Your task to perform on an android device: Open Youtube and go to the subscriptions tab Image 0: 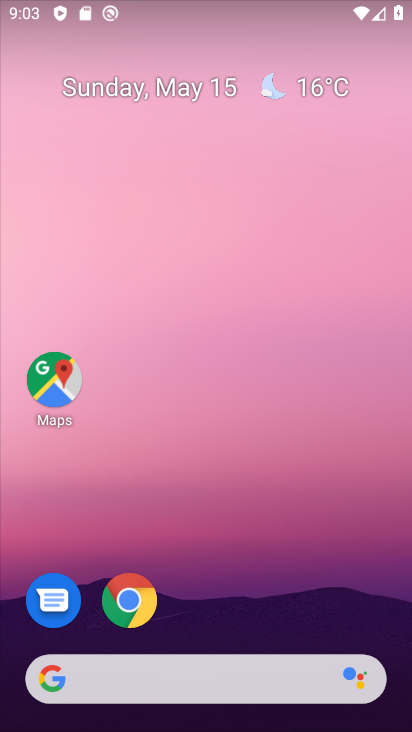
Step 0: drag from (201, 428) to (211, 114)
Your task to perform on an android device: Open Youtube and go to the subscriptions tab Image 1: 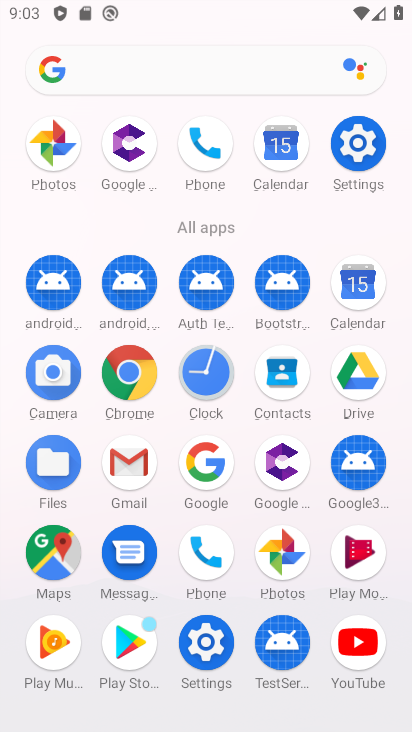
Step 1: click (358, 657)
Your task to perform on an android device: Open Youtube and go to the subscriptions tab Image 2: 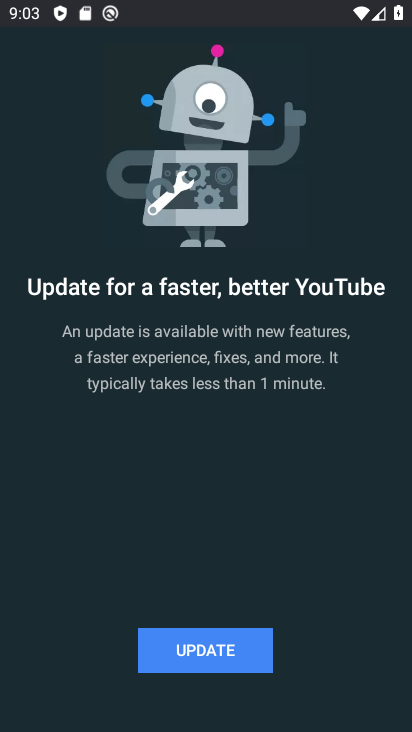
Step 2: click (184, 659)
Your task to perform on an android device: Open Youtube and go to the subscriptions tab Image 3: 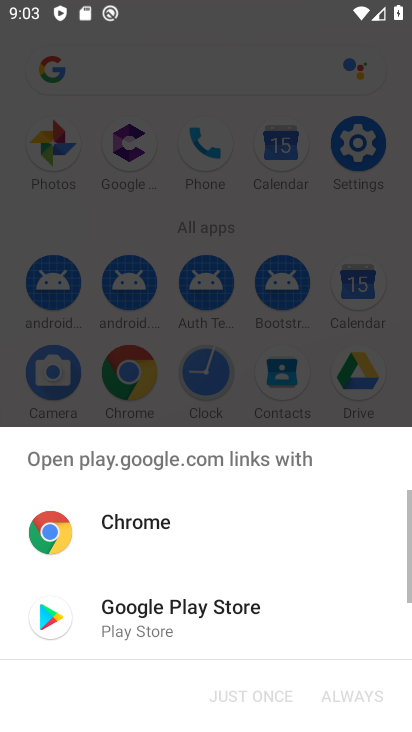
Step 3: click (170, 624)
Your task to perform on an android device: Open Youtube and go to the subscriptions tab Image 4: 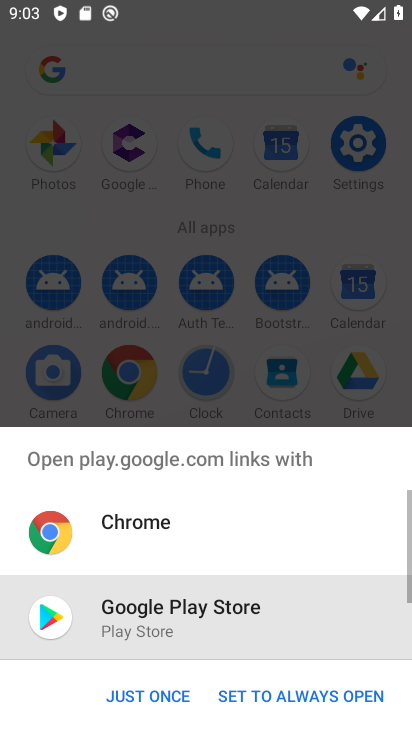
Step 4: click (119, 687)
Your task to perform on an android device: Open Youtube and go to the subscriptions tab Image 5: 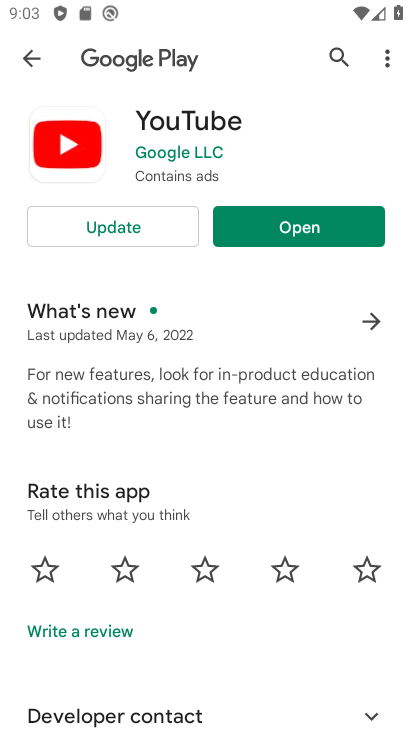
Step 5: click (145, 236)
Your task to perform on an android device: Open Youtube and go to the subscriptions tab Image 6: 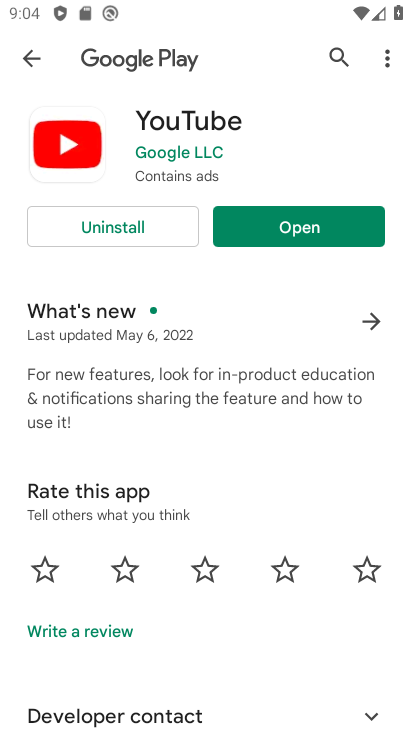
Step 6: click (283, 228)
Your task to perform on an android device: Open Youtube and go to the subscriptions tab Image 7: 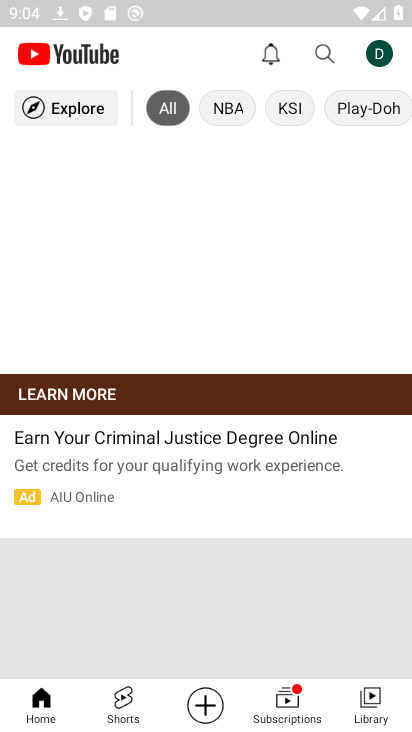
Step 7: click (287, 708)
Your task to perform on an android device: Open Youtube and go to the subscriptions tab Image 8: 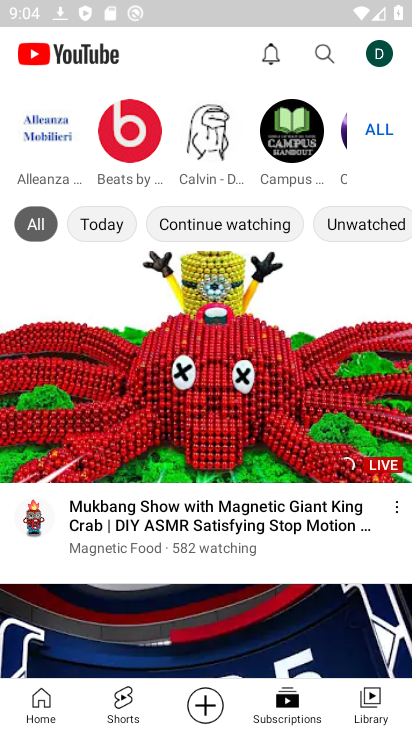
Step 8: task complete